Your task to perform on an android device: turn pop-ups on in chrome Image 0: 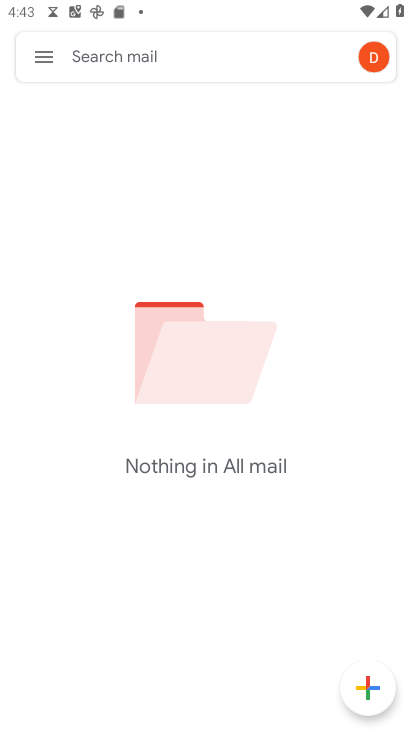
Step 0: press home button
Your task to perform on an android device: turn pop-ups on in chrome Image 1: 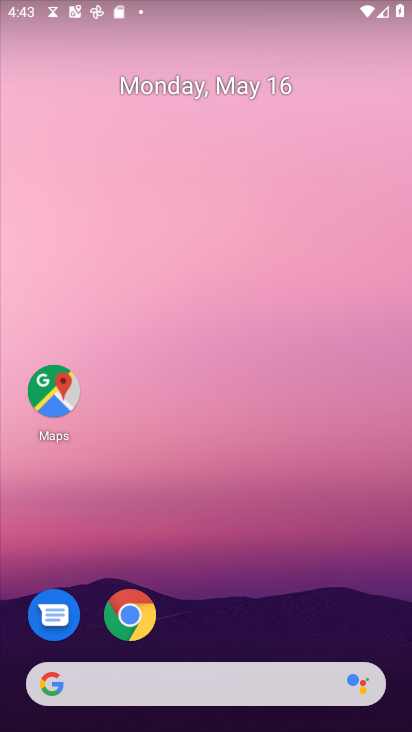
Step 1: click (110, 633)
Your task to perform on an android device: turn pop-ups on in chrome Image 2: 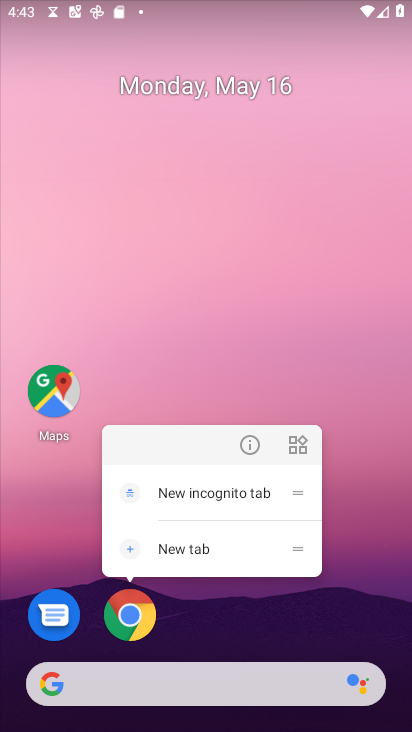
Step 2: click (135, 619)
Your task to perform on an android device: turn pop-ups on in chrome Image 3: 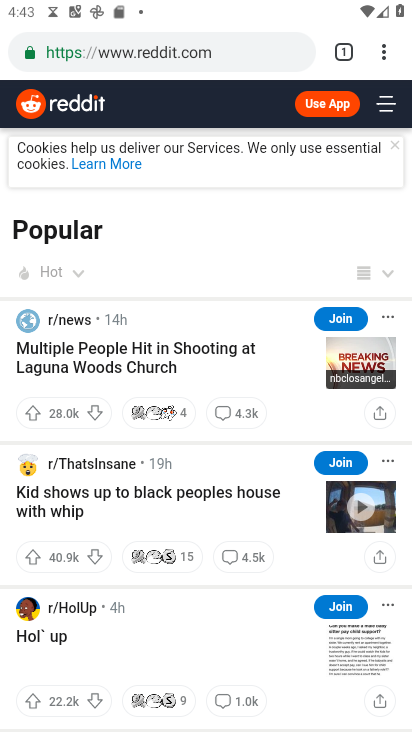
Step 3: click (385, 60)
Your task to perform on an android device: turn pop-ups on in chrome Image 4: 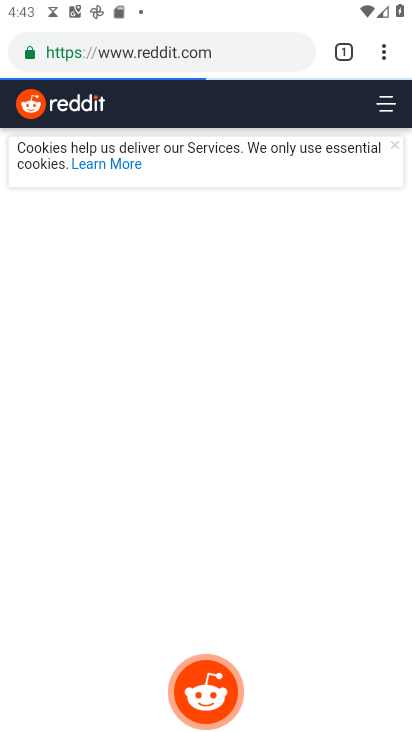
Step 4: click (381, 53)
Your task to perform on an android device: turn pop-ups on in chrome Image 5: 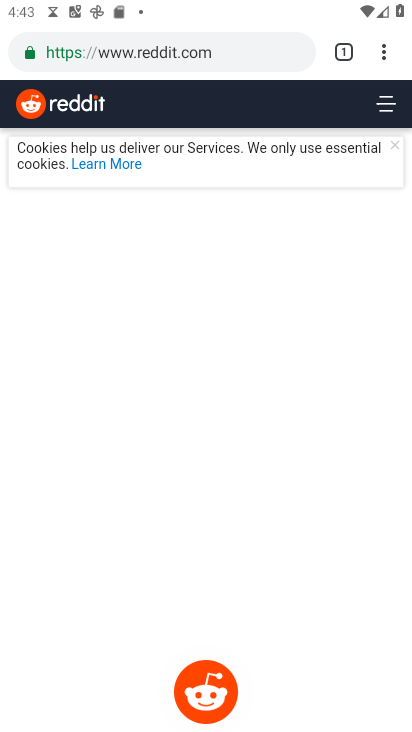
Step 5: click (386, 49)
Your task to perform on an android device: turn pop-ups on in chrome Image 6: 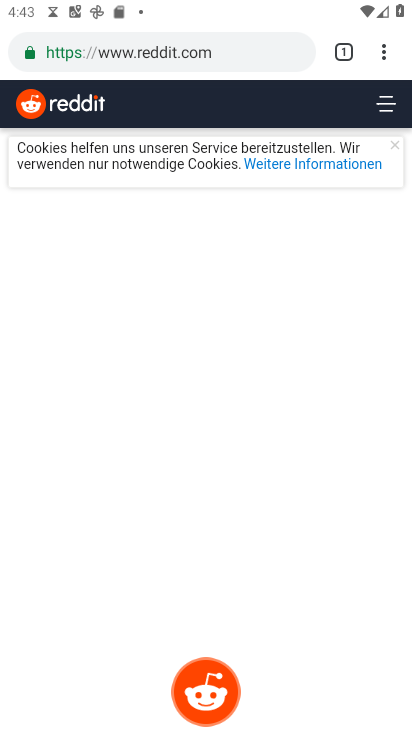
Step 6: click (386, 53)
Your task to perform on an android device: turn pop-ups on in chrome Image 7: 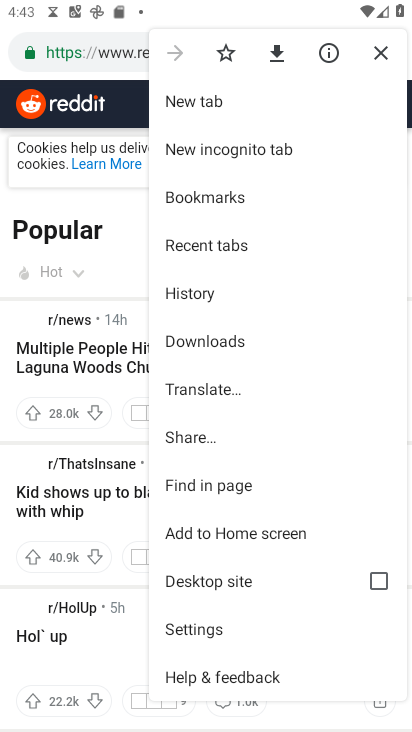
Step 7: click (194, 638)
Your task to perform on an android device: turn pop-ups on in chrome Image 8: 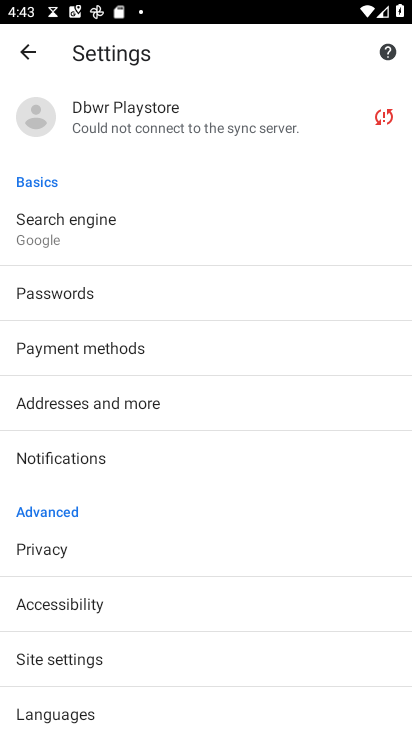
Step 8: drag from (118, 675) to (184, 447)
Your task to perform on an android device: turn pop-ups on in chrome Image 9: 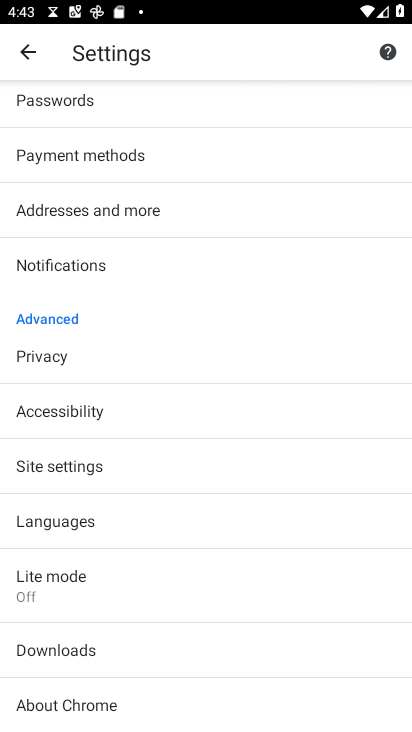
Step 9: click (78, 472)
Your task to perform on an android device: turn pop-ups on in chrome Image 10: 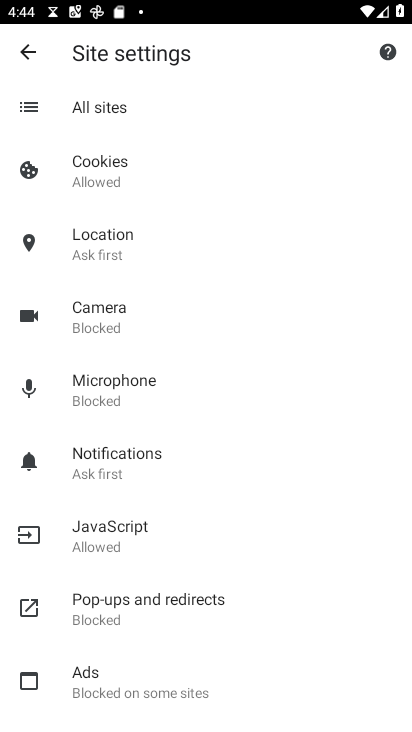
Step 10: click (126, 616)
Your task to perform on an android device: turn pop-ups on in chrome Image 11: 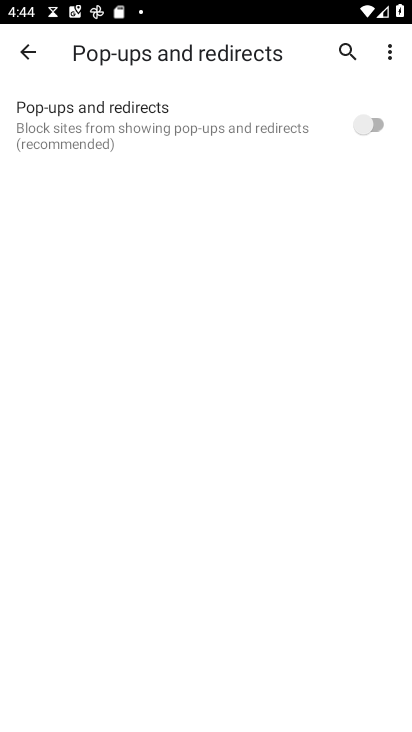
Step 11: click (384, 117)
Your task to perform on an android device: turn pop-ups on in chrome Image 12: 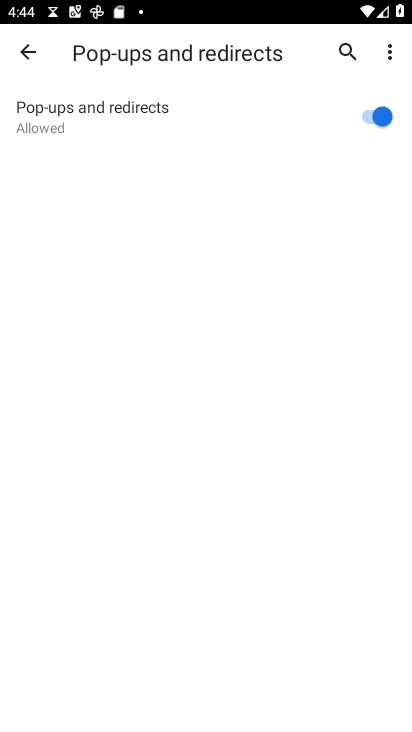
Step 12: task complete